Your task to perform on an android device: Open Google Maps and go to "Timeline" Image 0: 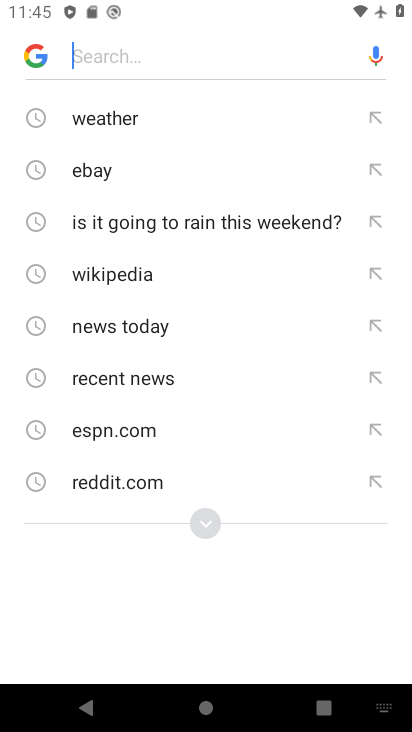
Step 0: press home button
Your task to perform on an android device: Open Google Maps and go to "Timeline" Image 1: 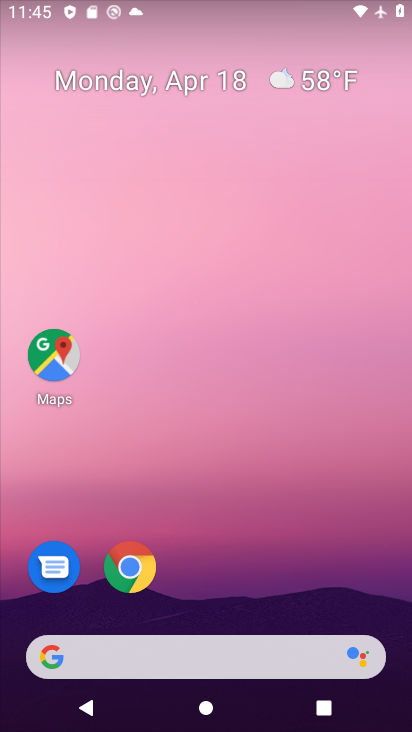
Step 1: click (48, 358)
Your task to perform on an android device: Open Google Maps and go to "Timeline" Image 2: 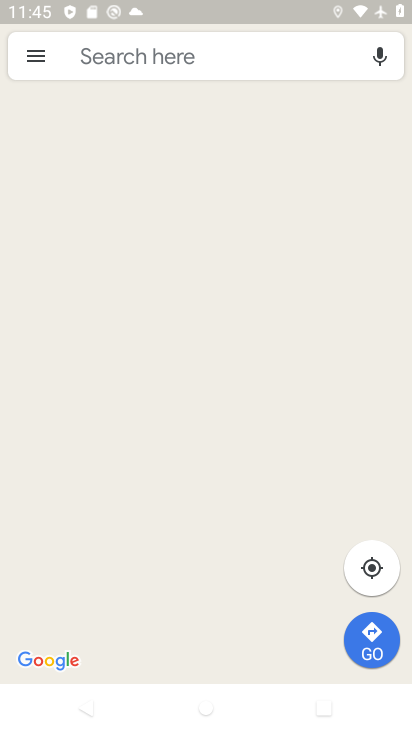
Step 2: click (33, 61)
Your task to perform on an android device: Open Google Maps and go to "Timeline" Image 3: 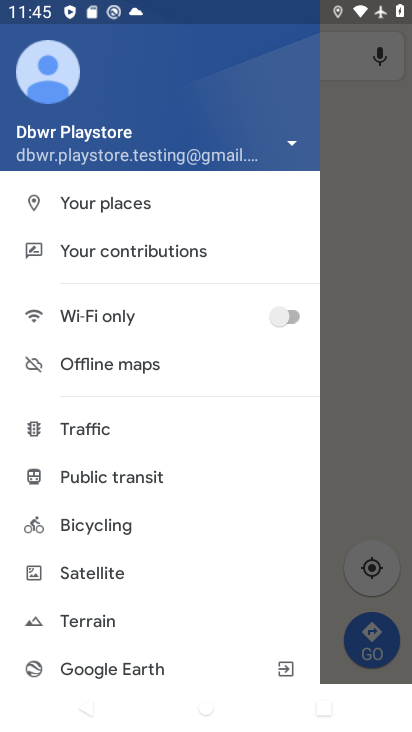
Step 3: task complete